Your task to perform on an android device: clear all cookies in the chrome app Image 0: 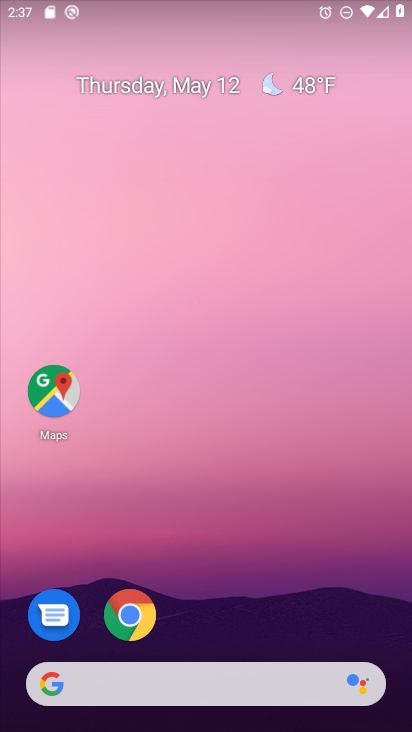
Step 0: drag from (278, 666) to (230, 79)
Your task to perform on an android device: clear all cookies in the chrome app Image 1: 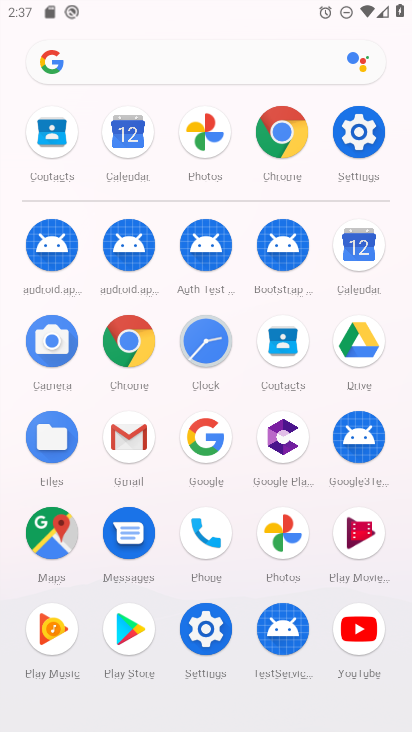
Step 1: click (129, 347)
Your task to perform on an android device: clear all cookies in the chrome app Image 2: 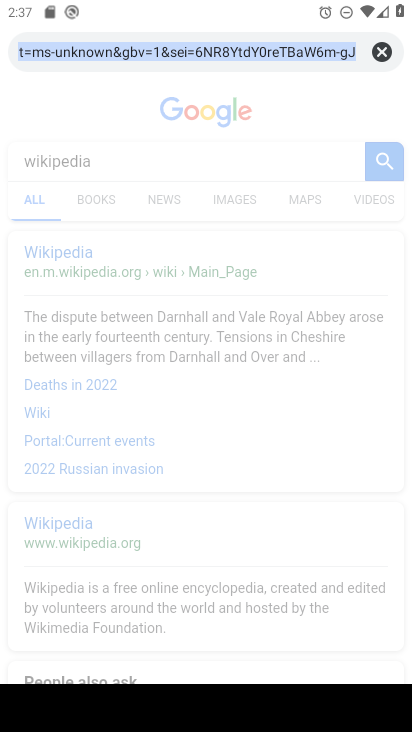
Step 2: press back button
Your task to perform on an android device: clear all cookies in the chrome app Image 3: 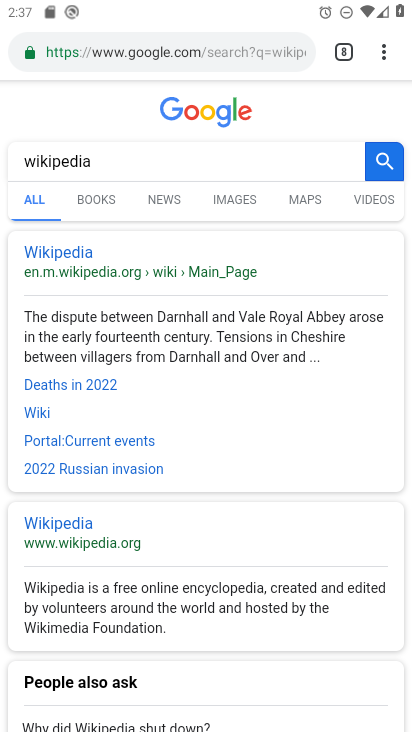
Step 3: click (388, 44)
Your task to perform on an android device: clear all cookies in the chrome app Image 4: 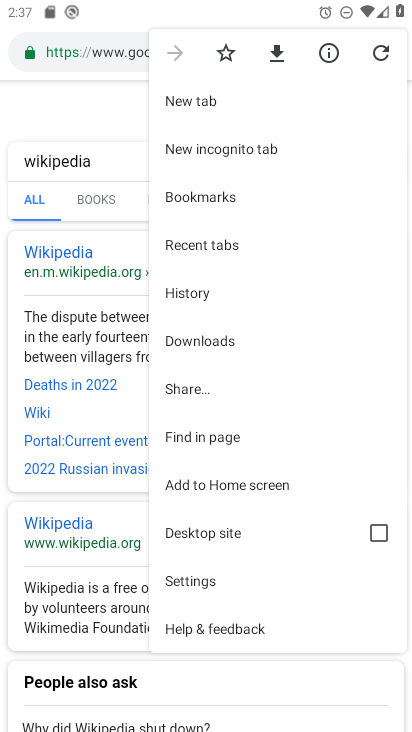
Step 4: click (242, 574)
Your task to perform on an android device: clear all cookies in the chrome app Image 5: 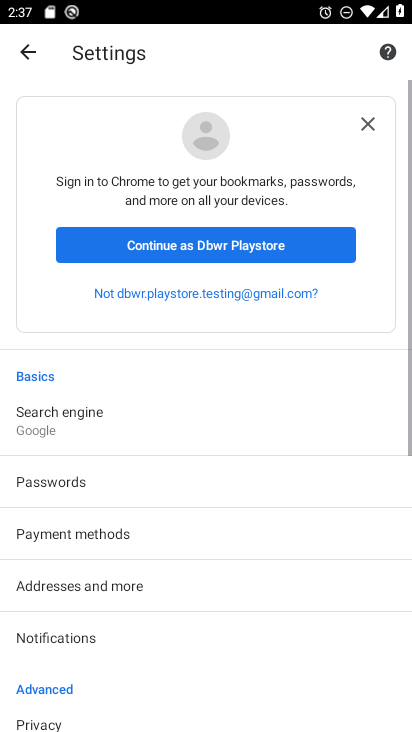
Step 5: drag from (283, 640) to (326, 114)
Your task to perform on an android device: clear all cookies in the chrome app Image 6: 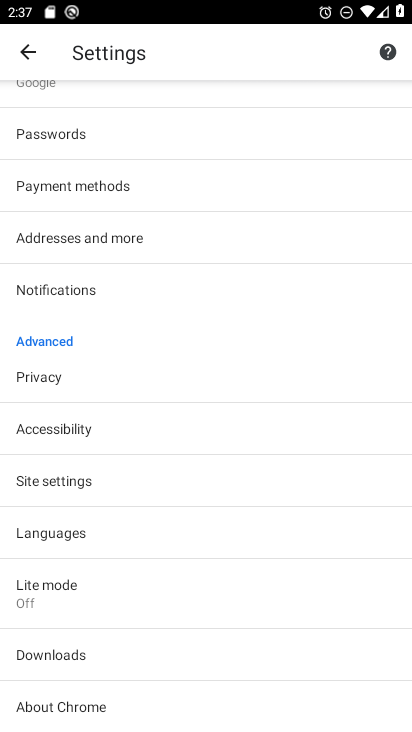
Step 6: click (176, 488)
Your task to perform on an android device: clear all cookies in the chrome app Image 7: 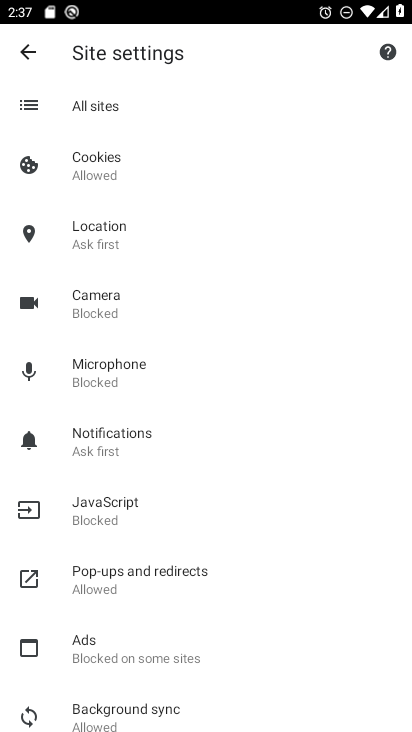
Step 7: click (133, 180)
Your task to perform on an android device: clear all cookies in the chrome app Image 8: 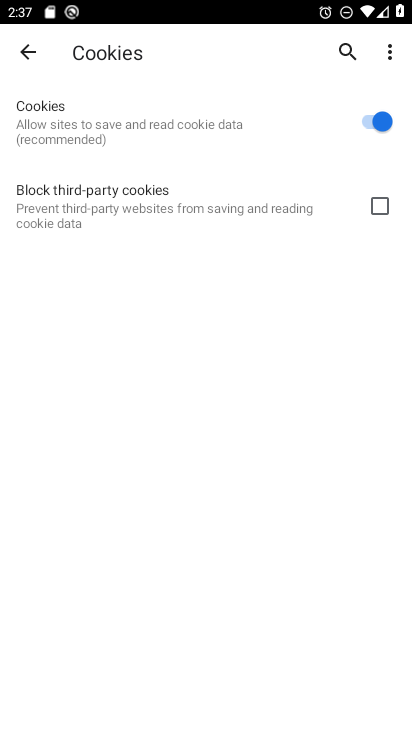
Step 8: press back button
Your task to perform on an android device: clear all cookies in the chrome app Image 9: 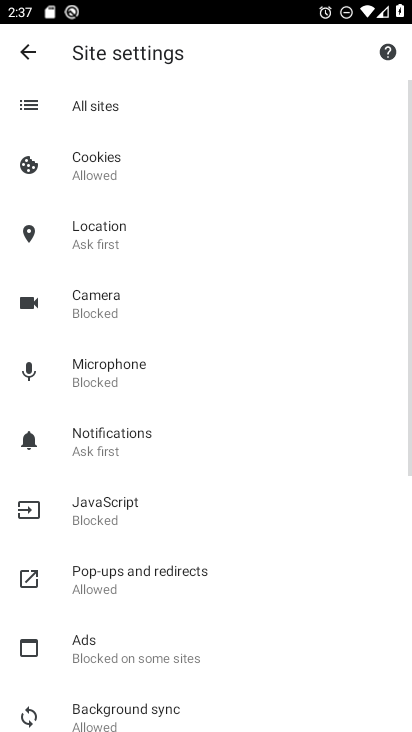
Step 9: press back button
Your task to perform on an android device: clear all cookies in the chrome app Image 10: 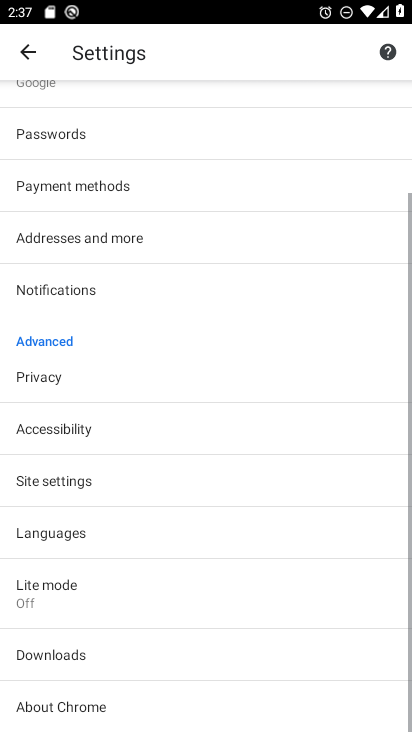
Step 10: click (104, 379)
Your task to perform on an android device: clear all cookies in the chrome app Image 11: 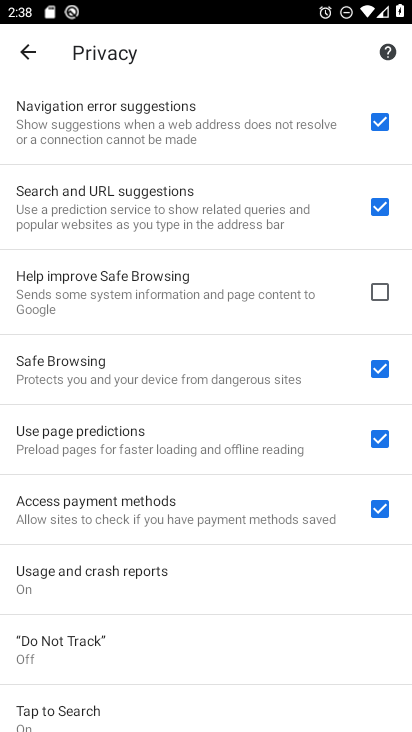
Step 11: drag from (262, 716) to (313, 156)
Your task to perform on an android device: clear all cookies in the chrome app Image 12: 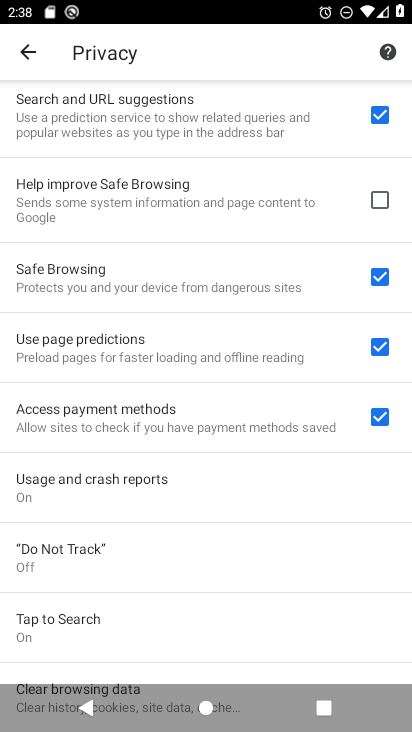
Step 12: click (246, 673)
Your task to perform on an android device: clear all cookies in the chrome app Image 13: 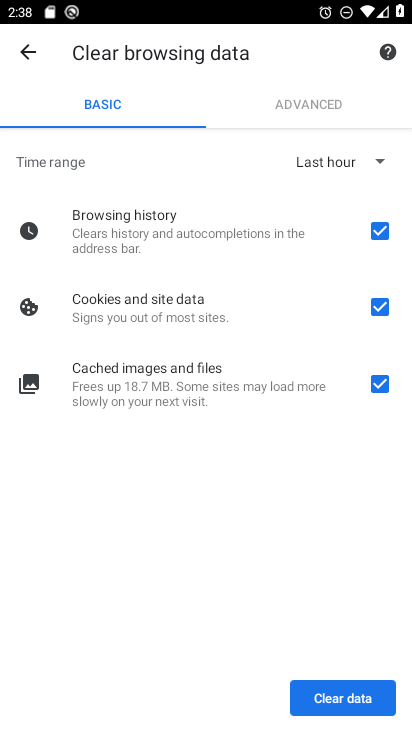
Step 13: click (366, 699)
Your task to perform on an android device: clear all cookies in the chrome app Image 14: 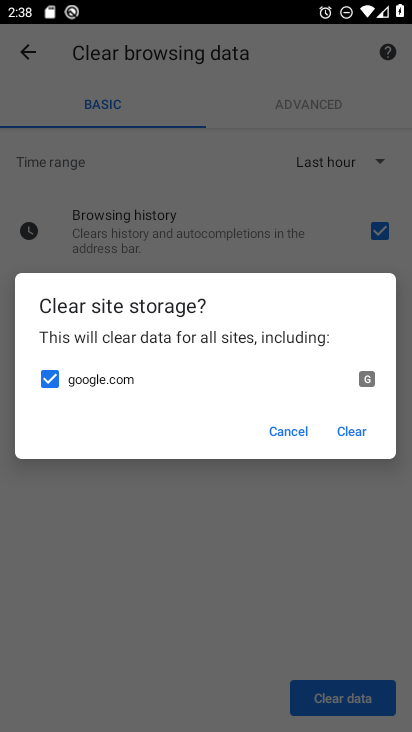
Step 14: click (366, 429)
Your task to perform on an android device: clear all cookies in the chrome app Image 15: 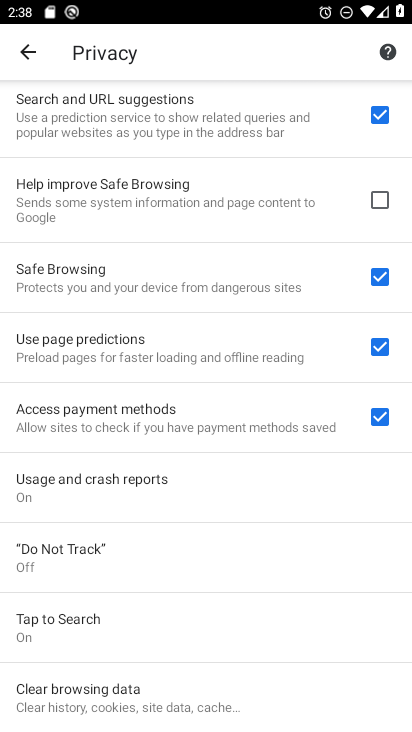
Step 15: task complete